Your task to perform on an android device: turn notification dots off Image 0: 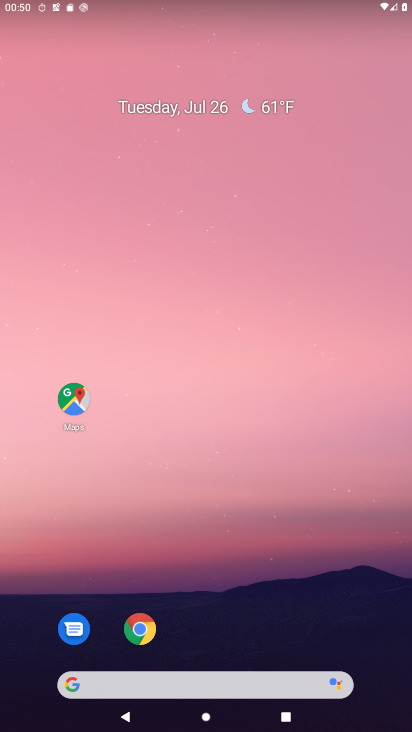
Step 0: drag from (210, 641) to (236, 260)
Your task to perform on an android device: turn notification dots off Image 1: 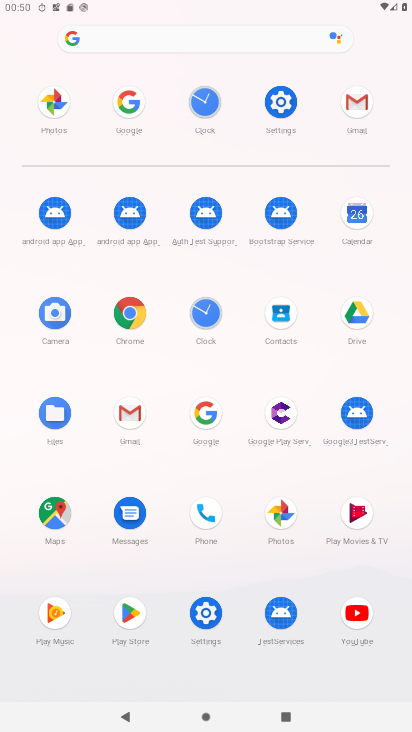
Step 1: click (290, 112)
Your task to perform on an android device: turn notification dots off Image 2: 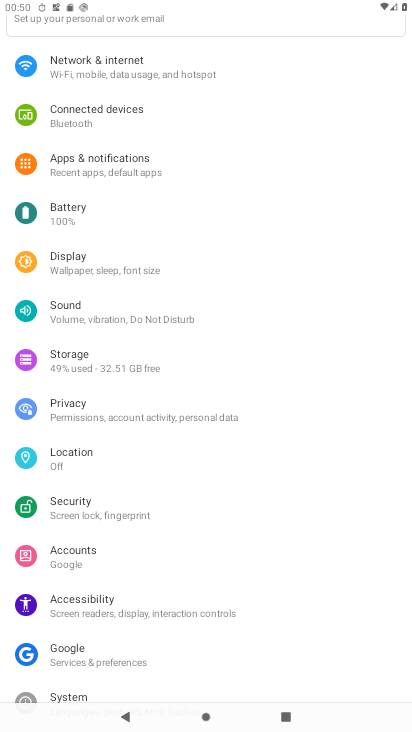
Step 2: click (180, 166)
Your task to perform on an android device: turn notification dots off Image 3: 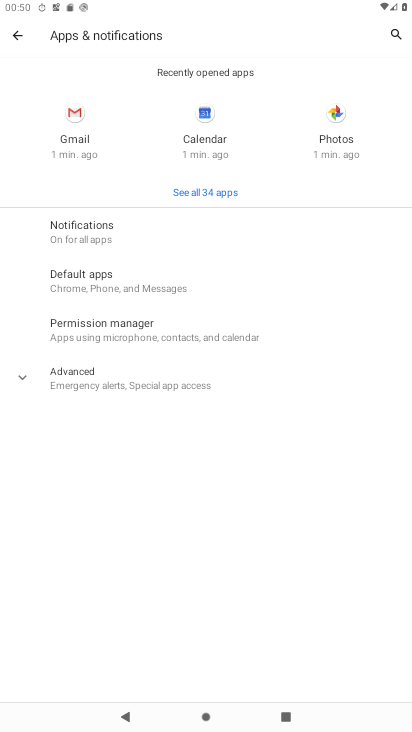
Step 3: click (123, 241)
Your task to perform on an android device: turn notification dots off Image 4: 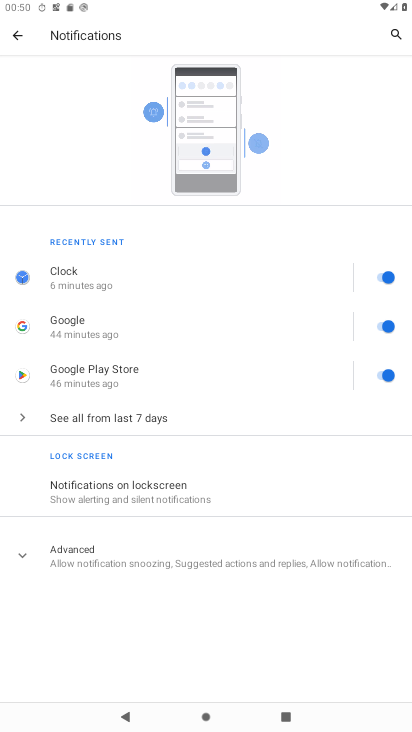
Step 4: click (154, 548)
Your task to perform on an android device: turn notification dots off Image 5: 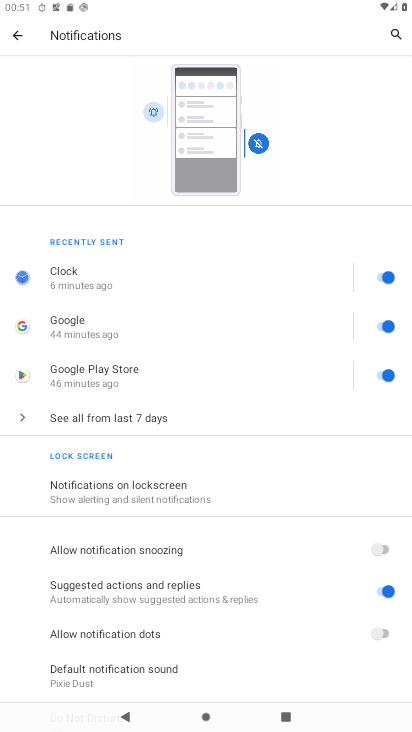
Step 5: task complete